Your task to perform on an android device: toggle notifications settings in the gmail app Image 0: 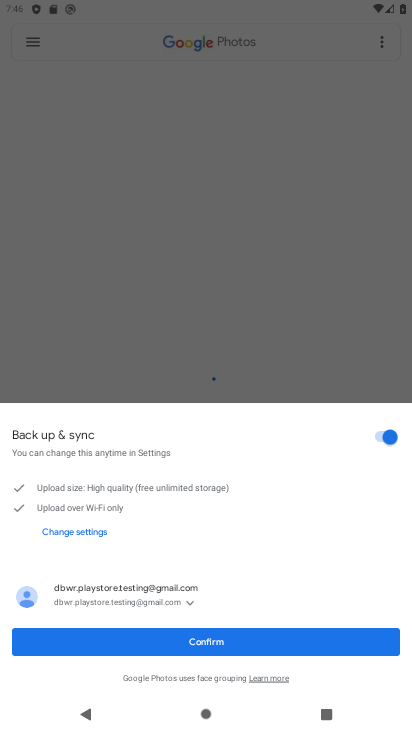
Step 0: press home button
Your task to perform on an android device: toggle notifications settings in the gmail app Image 1: 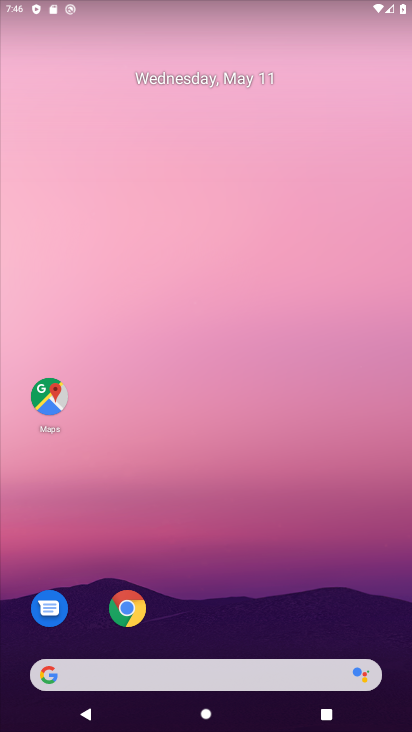
Step 1: drag from (266, 623) to (232, 75)
Your task to perform on an android device: toggle notifications settings in the gmail app Image 2: 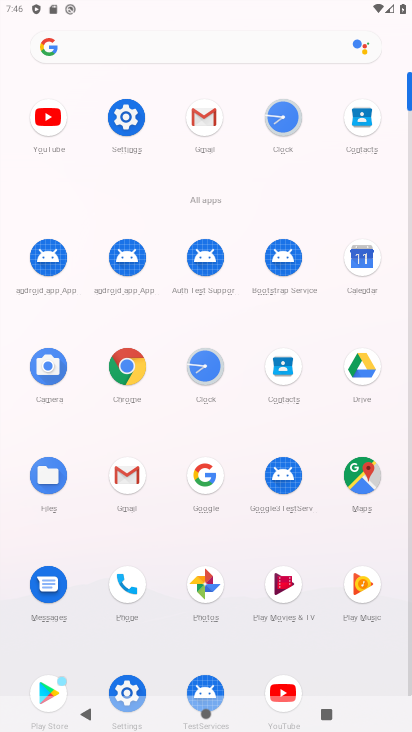
Step 2: click (191, 118)
Your task to perform on an android device: toggle notifications settings in the gmail app Image 3: 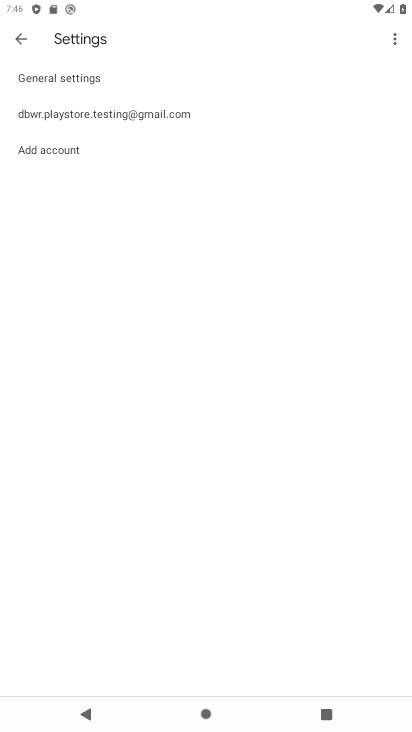
Step 3: click (161, 110)
Your task to perform on an android device: toggle notifications settings in the gmail app Image 4: 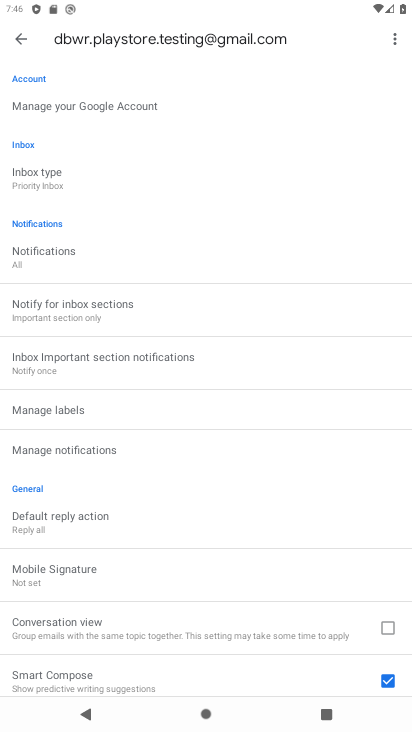
Step 4: click (69, 264)
Your task to perform on an android device: toggle notifications settings in the gmail app Image 5: 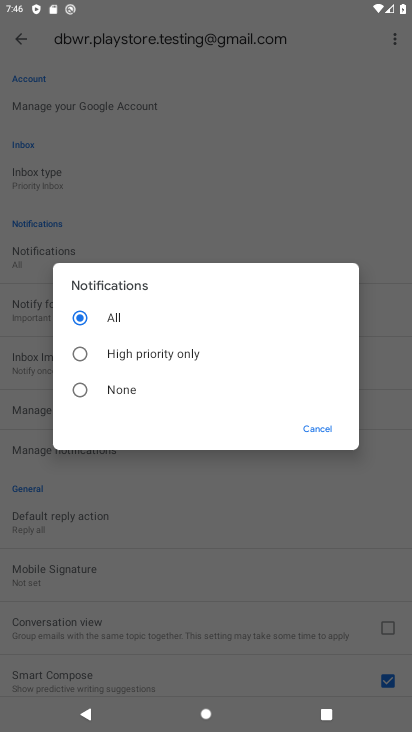
Step 5: click (128, 387)
Your task to perform on an android device: toggle notifications settings in the gmail app Image 6: 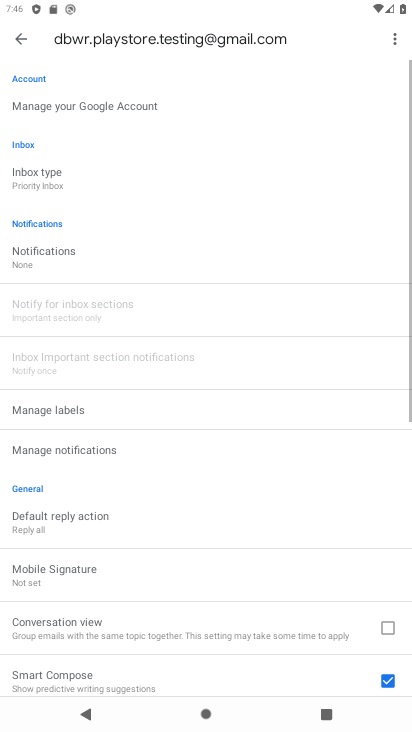
Step 6: task complete